Your task to perform on an android device: star an email in the gmail app Image 0: 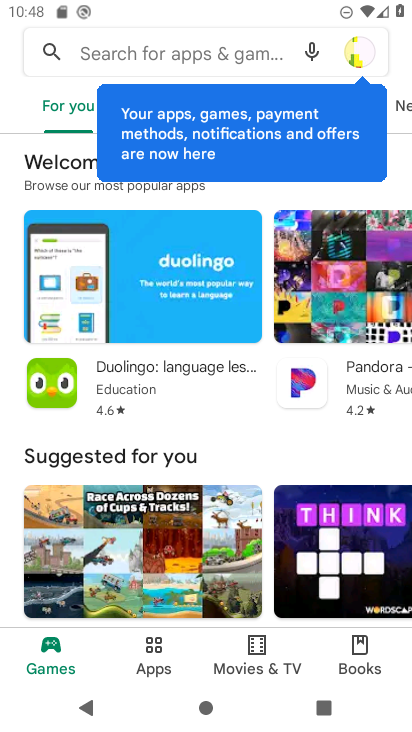
Step 0: press home button
Your task to perform on an android device: star an email in the gmail app Image 1: 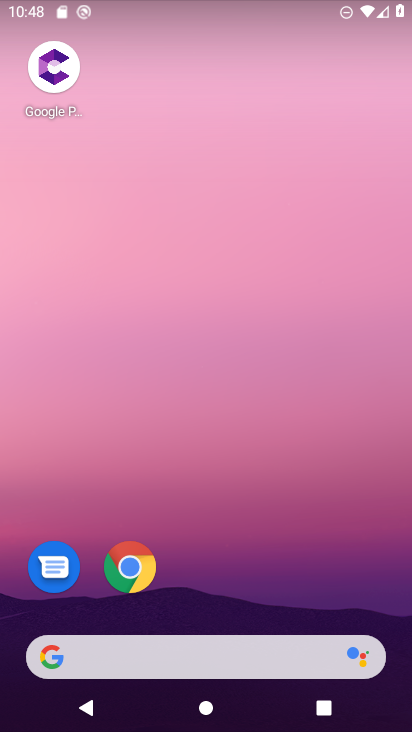
Step 1: drag from (281, 579) to (320, 223)
Your task to perform on an android device: star an email in the gmail app Image 2: 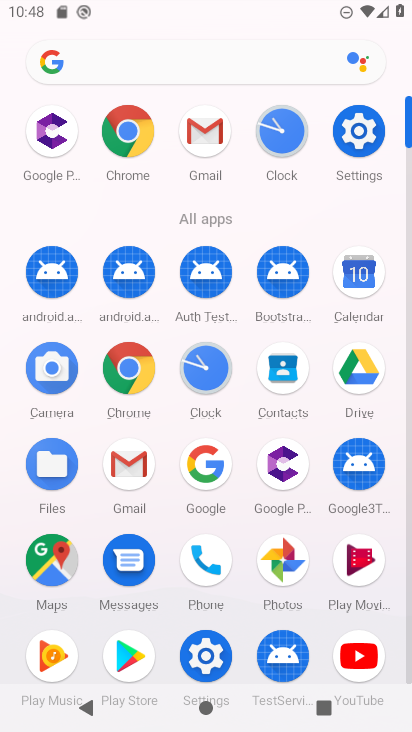
Step 2: click (137, 478)
Your task to perform on an android device: star an email in the gmail app Image 3: 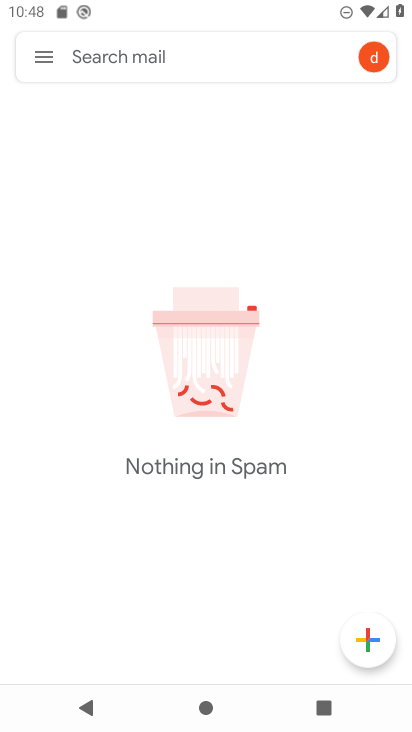
Step 3: click (38, 57)
Your task to perform on an android device: star an email in the gmail app Image 4: 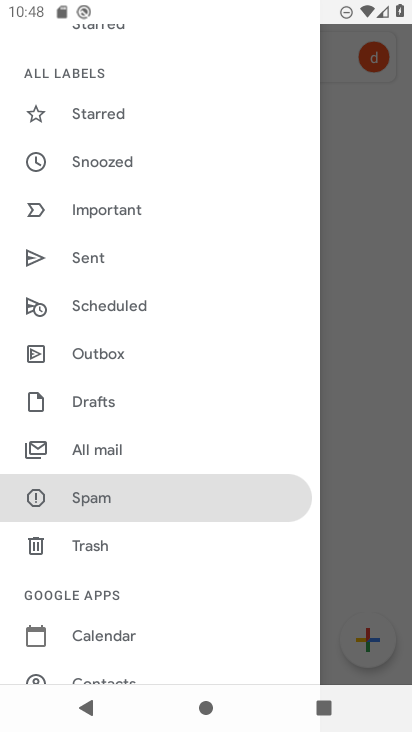
Step 4: drag from (206, 414) to (247, 591)
Your task to perform on an android device: star an email in the gmail app Image 5: 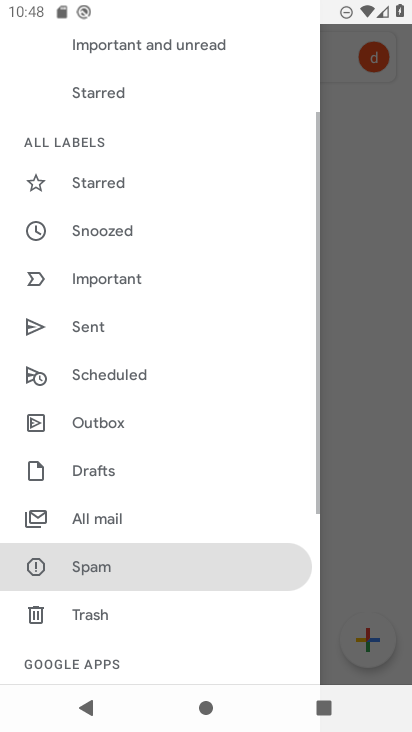
Step 5: click (377, 538)
Your task to perform on an android device: star an email in the gmail app Image 6: 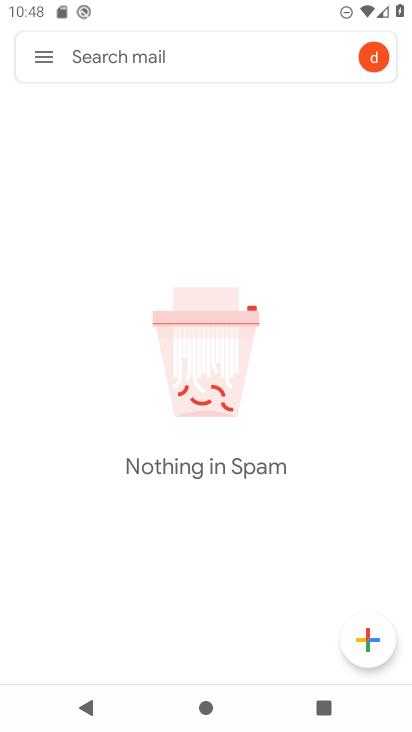
Step 6: click (40, 68)
Your task to perform on an android device: star an email in the gmail app Image 7: 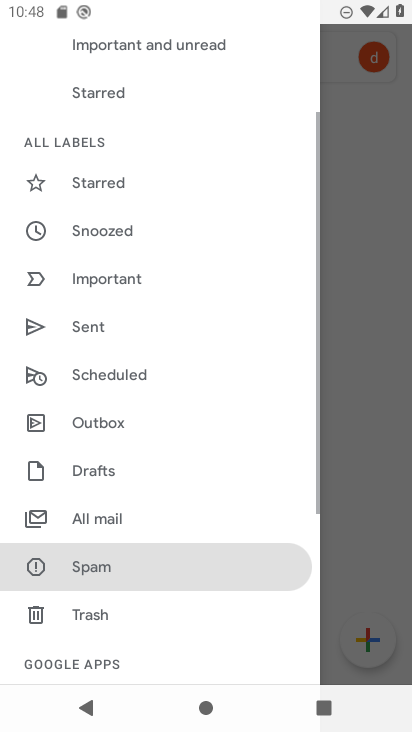
Step 7: drag from (71, 111) to (99, 614)
Your task to perform on an android device: star an email in the gmail app Image 8: 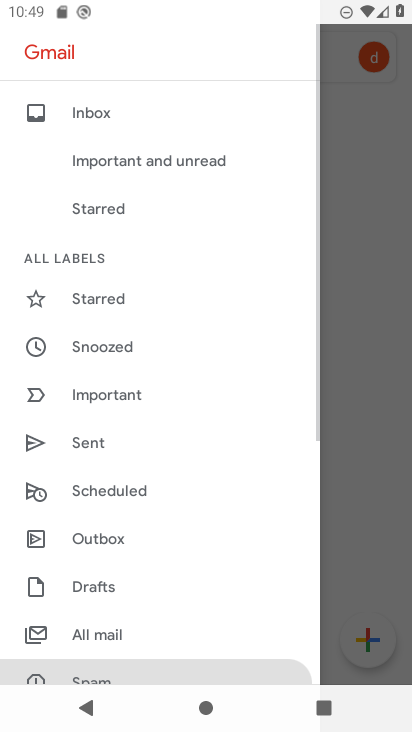
Step 8: click (143, 113)
Your task to perform on an android device: star an email in the gmail app Image 9: 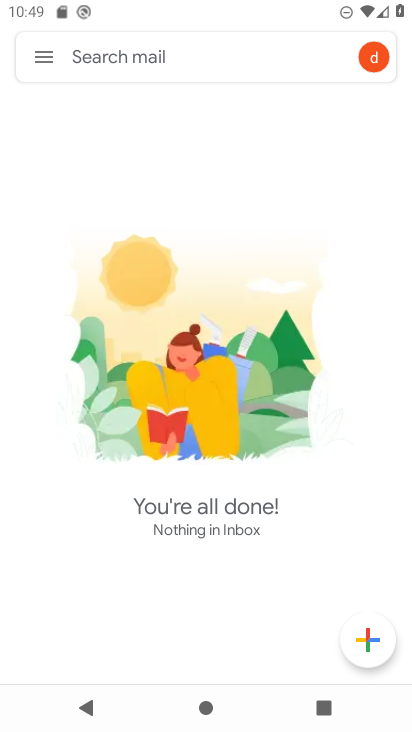
Step 9: task complete